Your task to perform on an android device: Open CNN.com Image 0: 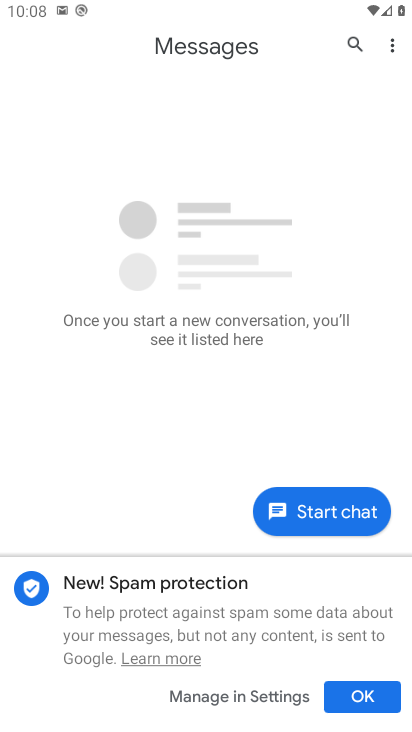
Step 0: press home button
Your task to perform on an android device: Open CNN.com Image 1: 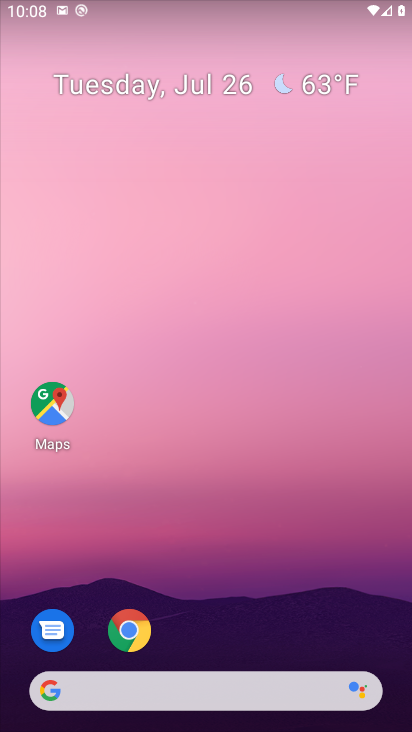
Step 1: drag from (217, 643) to (214, 81)
Your task to perform on an android device: Open CNN.com Image 2: 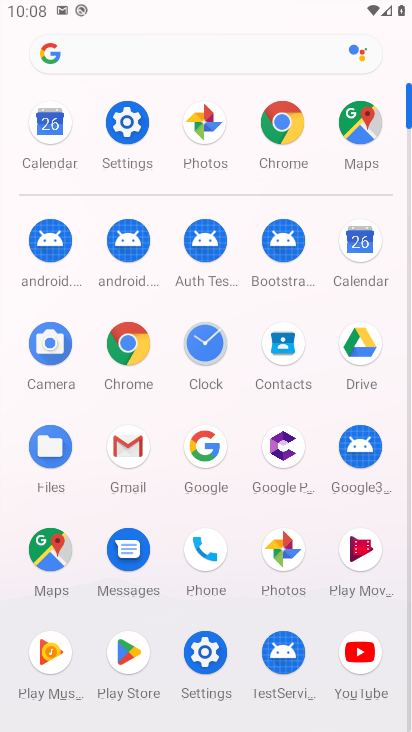
Step 2: click (276, 127)
Your task to perform on an android device: Open CNN.com Image 3: 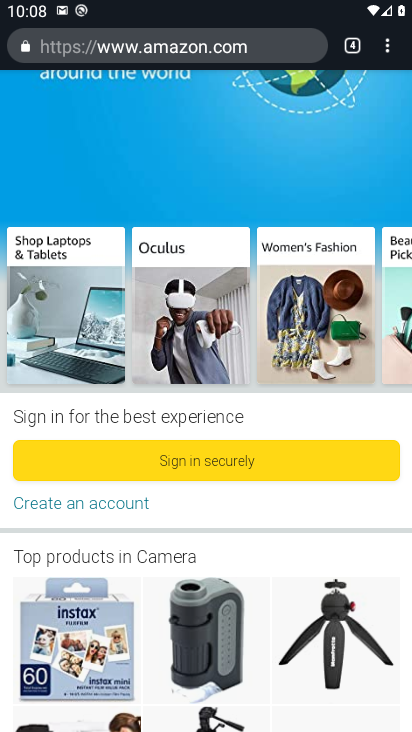
Step 3: click (353, 46)
Your task to perform on an android device: Open CNN.com Image 4: 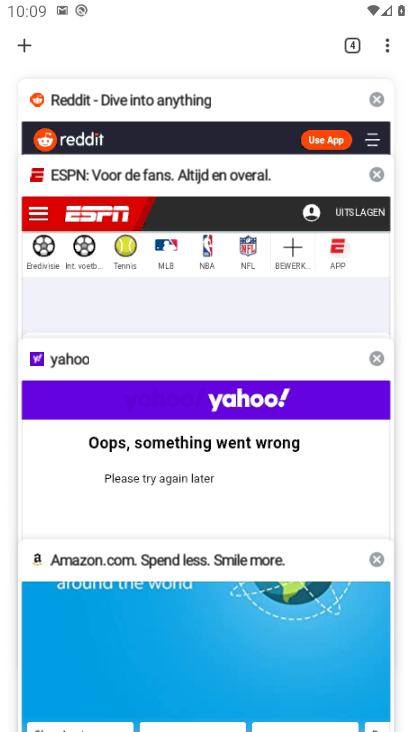
Step 4: click (27, 46)
Your task to perform on an android device: Open CNN.com Image 5: 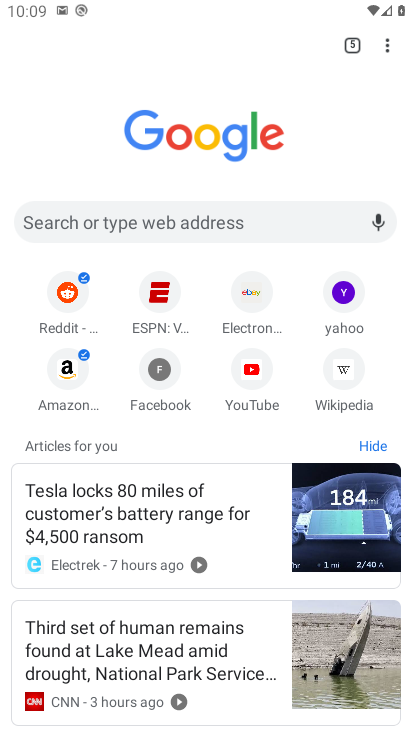
Step 5: click (119, 222)
Your task to perform on an android device: Open CNN.com Image 6: 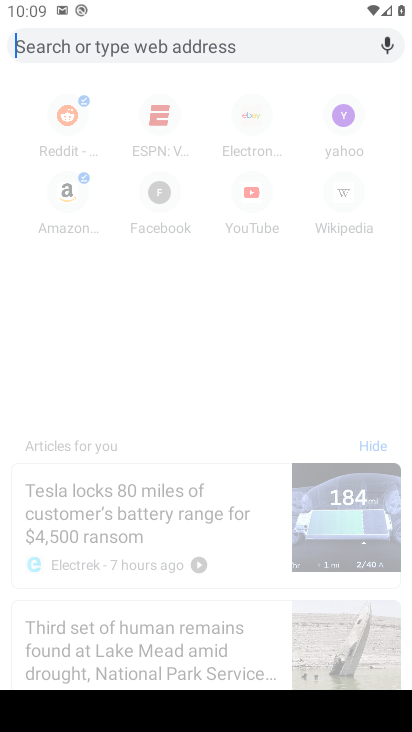
Step 6: type "cnn.com"
Your task to perform on an android device: Open CNN.com Image 7: 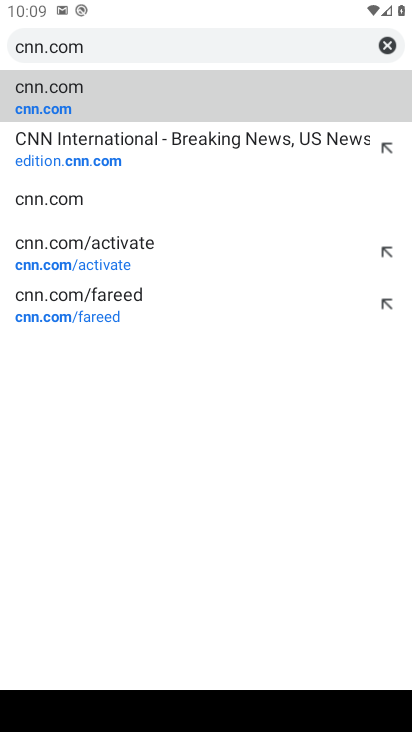
Step 7: click (71, 96)
Your task to perform on an android device: Open CNN.com Image 8: 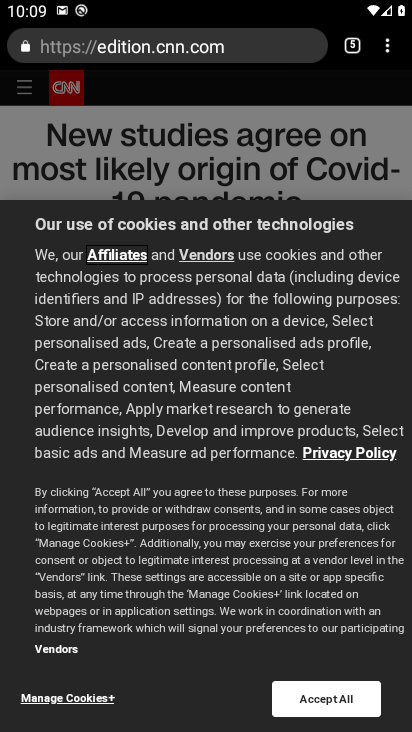
Step 8: drag from (218, 593) to (229, 238)
Your task to perform on an android device: Open CNN.com Image 9: 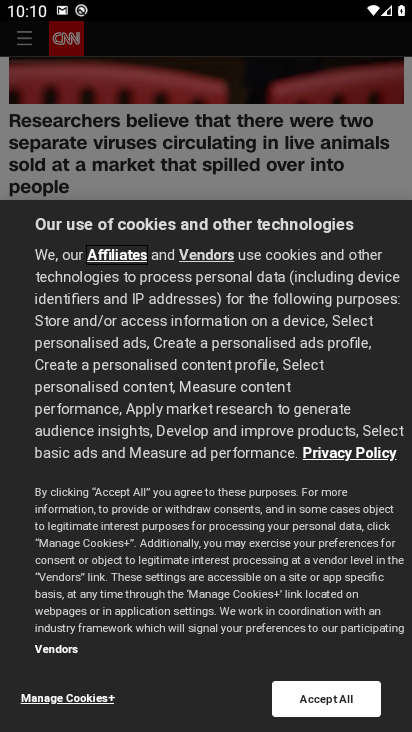
Step 9: click (342, 697)
Your task to perform on an android device: Open CNN.com Image 10: 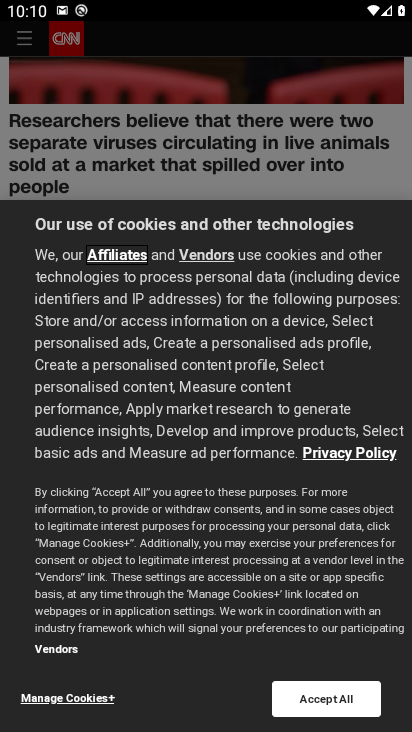
Step 10: task complete